Your task to perform on an android device: Do I have any events this weekend? Image 0: 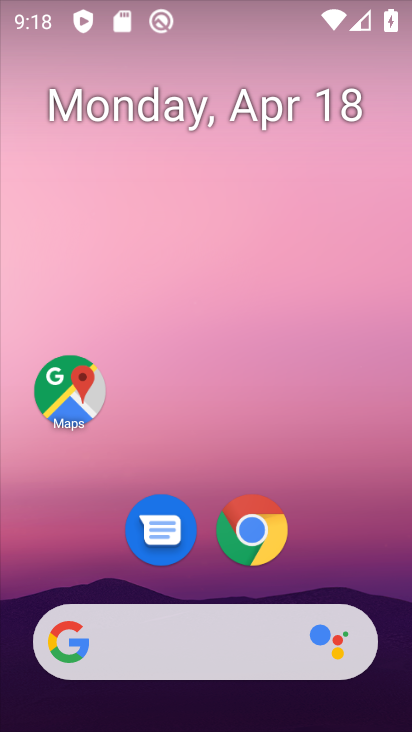
Step 0: drag from (361, 594) to (398, 34)
Your task to perform on an android device: Do I have any events this weekend? Image 1: 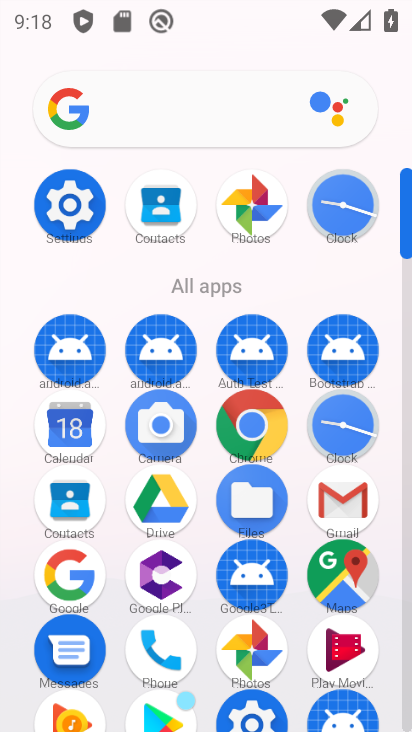
Step 1: click (71, 431)
Your task to perform on an android device: Do I have any events this weekend? Image 2: 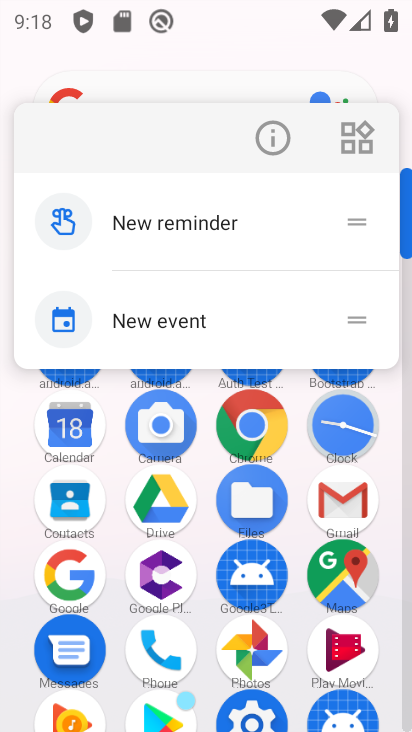
Step 2: click (66, 439)
Your task to perform on an android device: Do I have any events this weekend? Image 3: 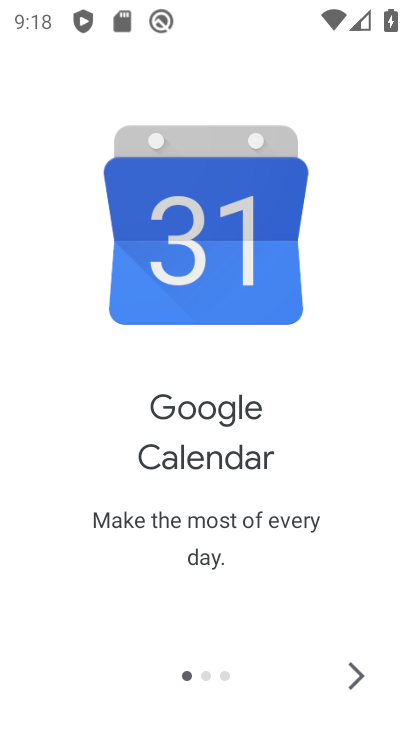
Step 3: click (344, 681)
Your task to perform on an android device: Do I have any events this weekend? Image 4: 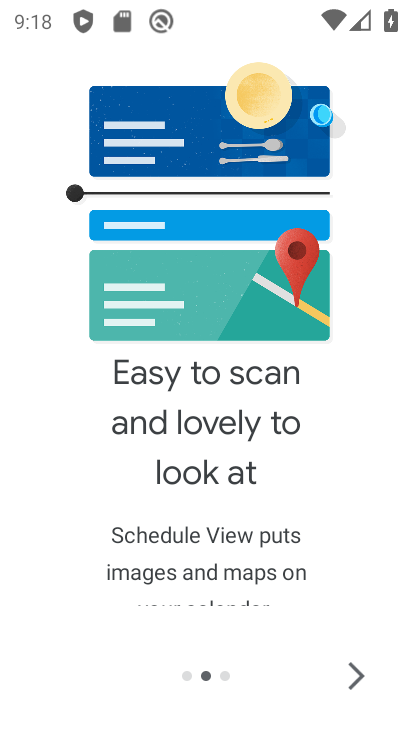
Step 4: click (344, 681)
Your task to perform on an android device: Do I have any events this weekend? Image 5: 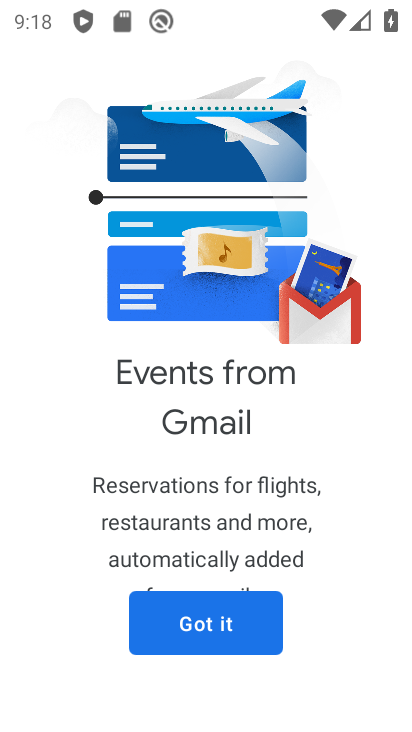
Step 5: click (231, 625)
Your task to perform on an android device: Do I have any events this weekend? Image 6: 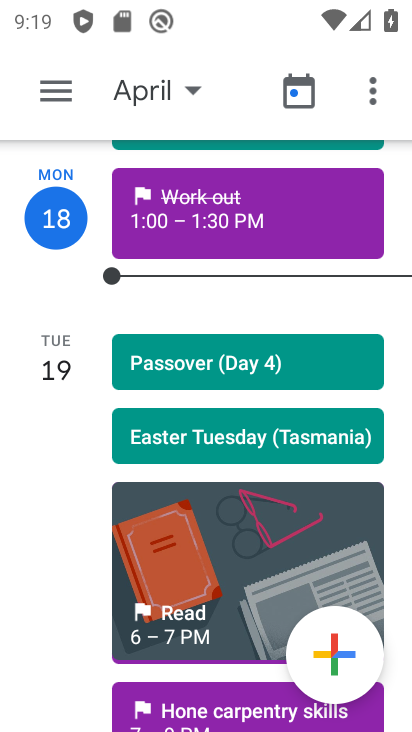
Step 6: click (55, 94)
Your task to perform on an android device: Do I have any events this weekend? Image 7: 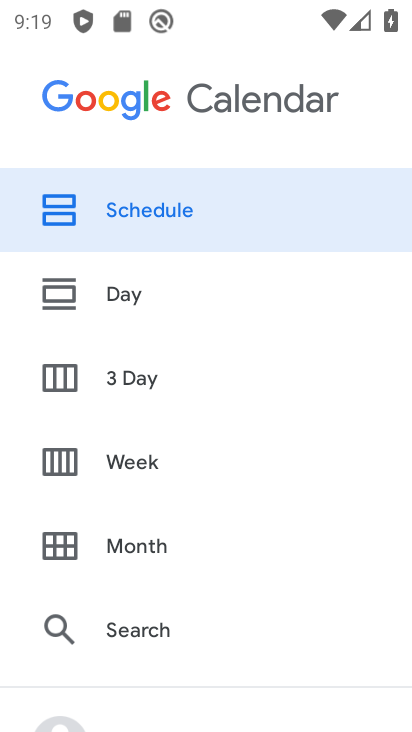
Step 7: drag from (208, 564) to (219, 272)
Your task to perform on an android device: Do I have any events this weekend? Image 8: 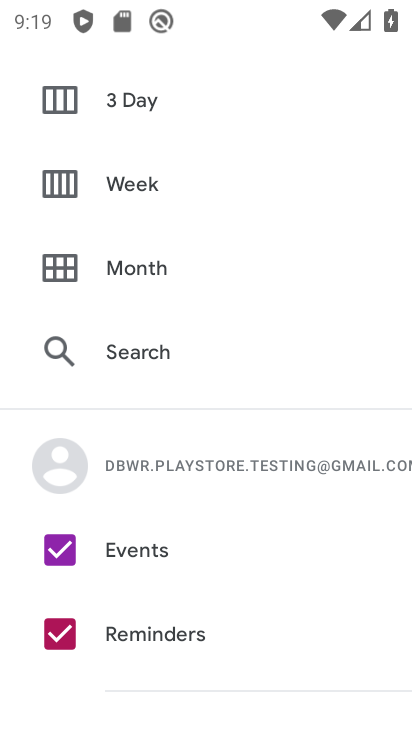
Step 8: drag from (205, 529) to (210, 209)
Your task to perform on an android device: Do I have any events this weekend? Image 9: 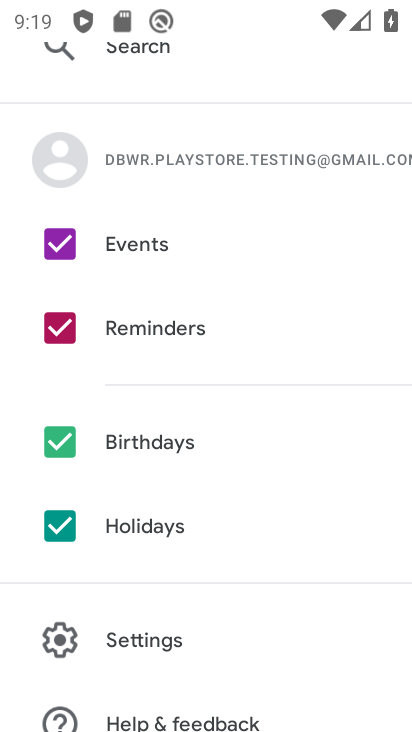
Step 9: click (47, 333)
Your task to perform on an android device: Do I have any events this weekend? Image 10: 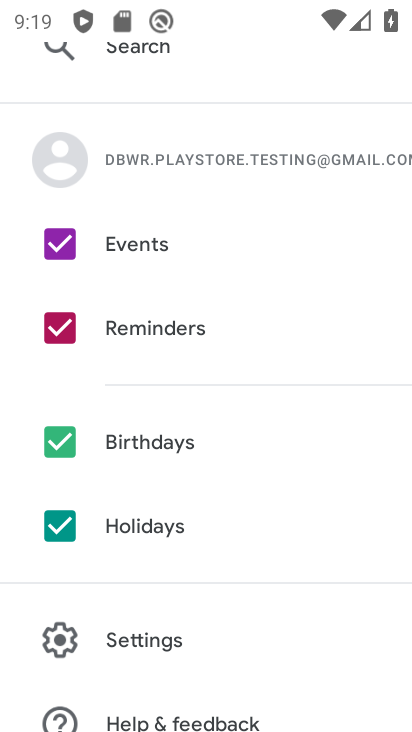
Step 10: click (61, 441)
Your task to perform on an android device: Do I have any events this weekend? Image 11: 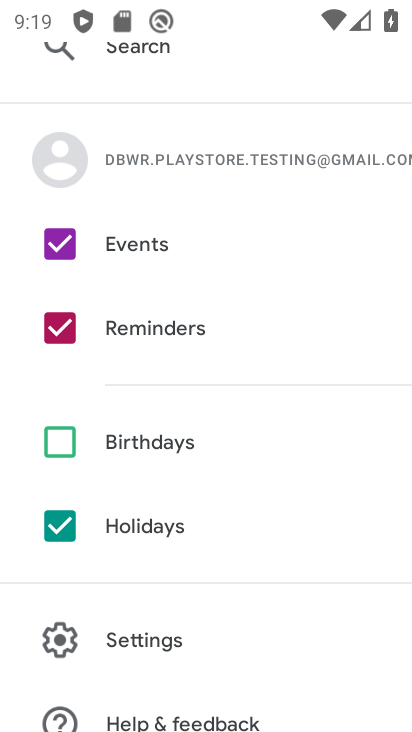
Step 11: click (56, 320)
Your task to perform on an android device: Do I have any events this weekend? Image 12: 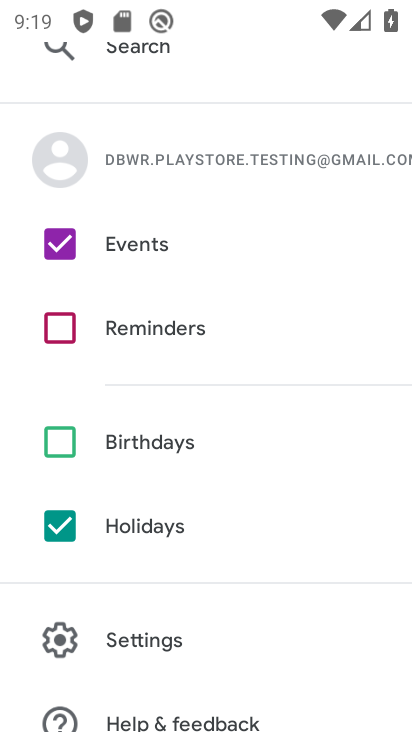
Step 12: click (59, 532)
Your task to perform on an android device: Do I have any events this weekend? Image 13: 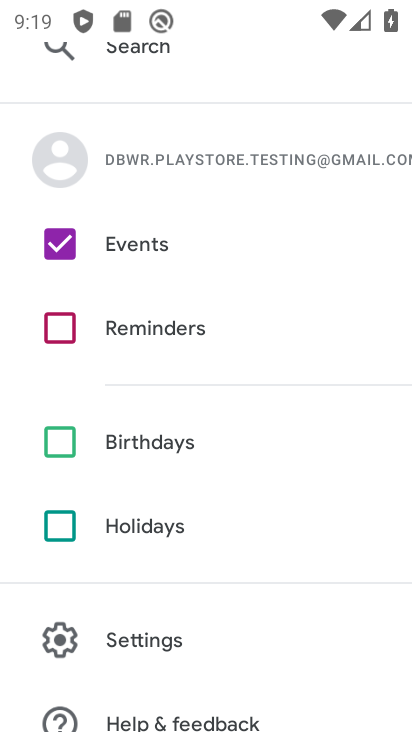
Step 13: drag from (305, 319) to (294, 640)
Your task to perform on an android device: Do I have any events this weekend? Image 14: 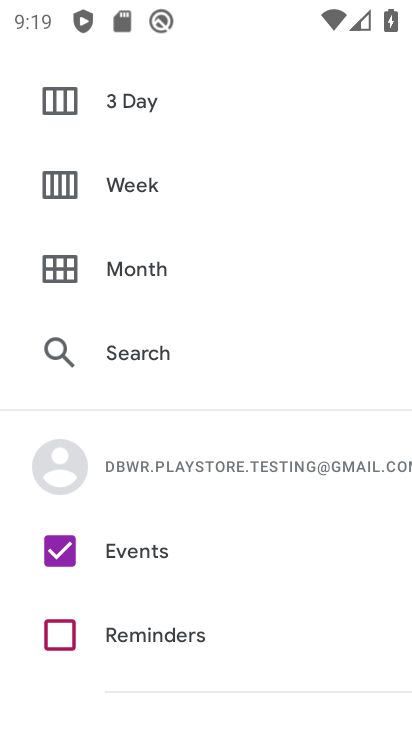
Step 14: drag from (258, 349) to (274, 577)
Your task to perform on an android device: Do I have any events this weekend? Image 15: 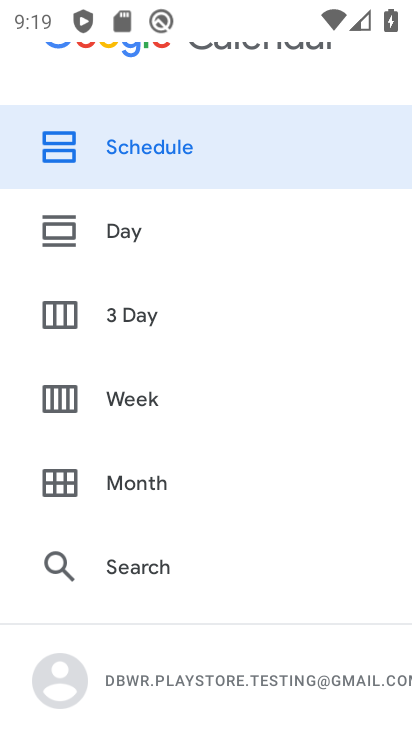
Step 15: click (127, 153)
Your task to perform on an android device: Do I have any events this weekend? Image 16: 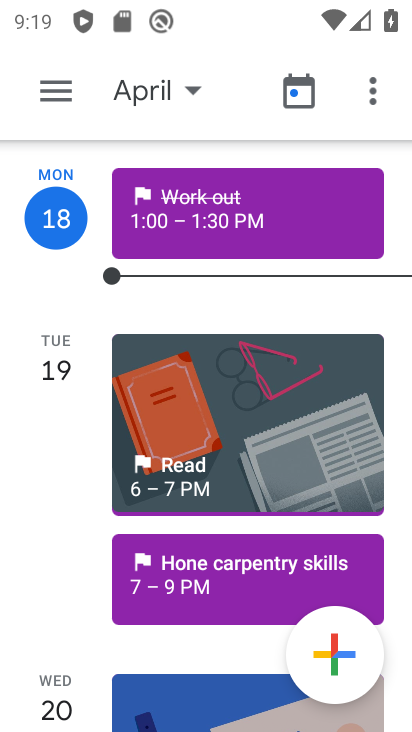
Step 16: click (196, 90)
Your task to perform on an android device: Do I have any events this weekend? Image 17: 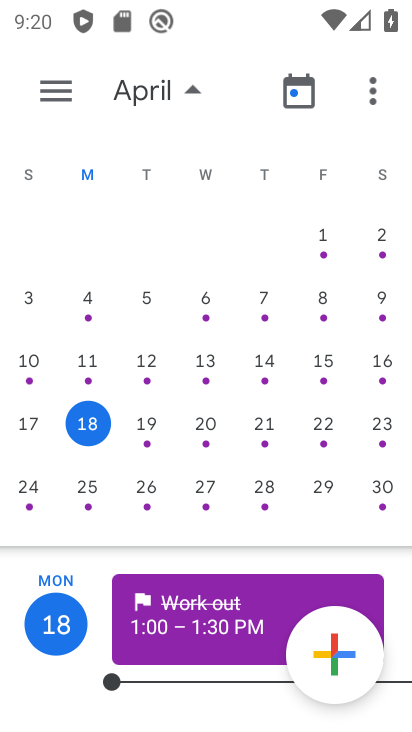
Step 17: click (382, 424)
Your task to perform on an android device: Do I have any events this weekend? Image 18: 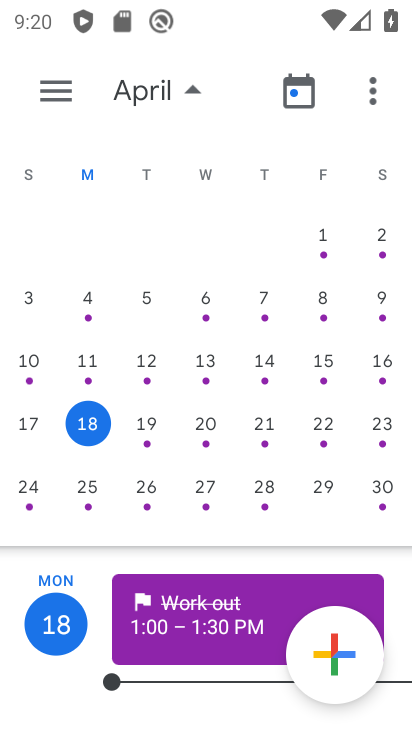
Step 18: click (382, 424)
Your task to perform on an android device: Do I have any events this weekend? Image 19: 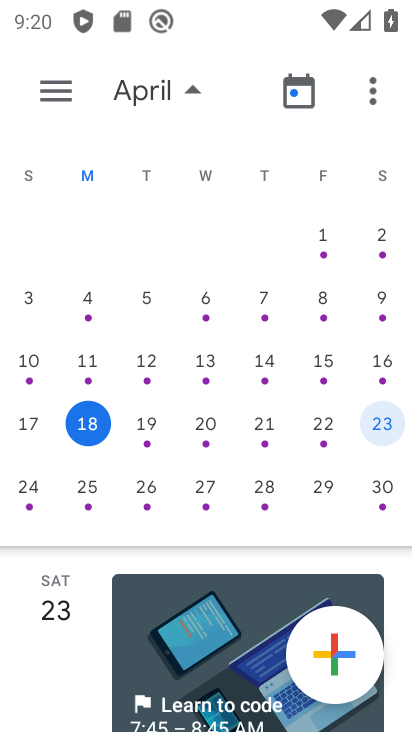
Step 19: drag from (244, 548) to (230, 185)
Your task to perform on an android device: Do I have any events this weekend? Image 20: 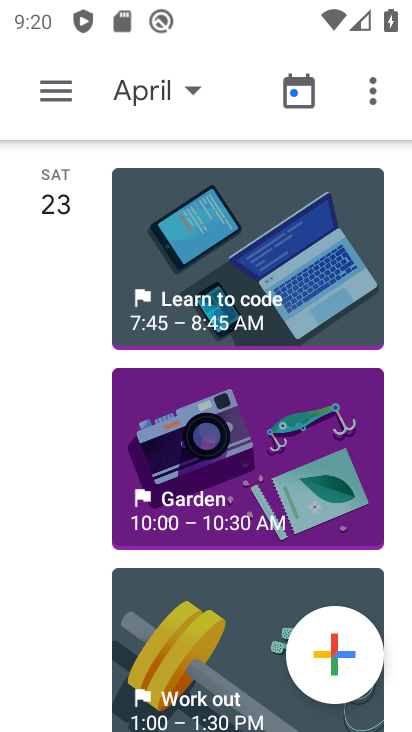
Step 20: click (220, 461)
Your task to perform on an android device: Do I have any events this weekend? Image 21: 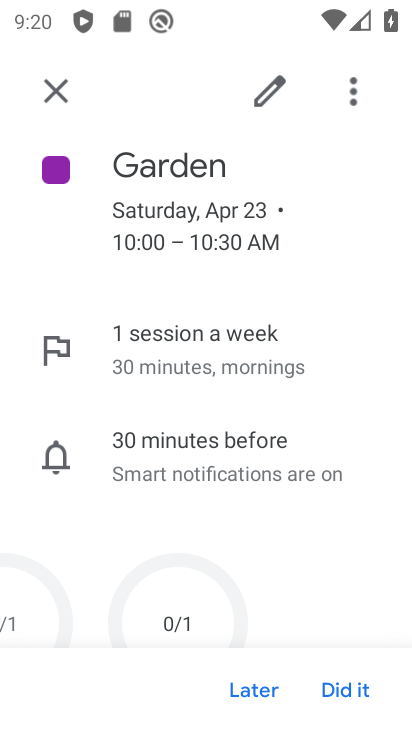
Step 21: task complete